Your task to perform on an android device: Go to calendar. Show me events next week Image 0: 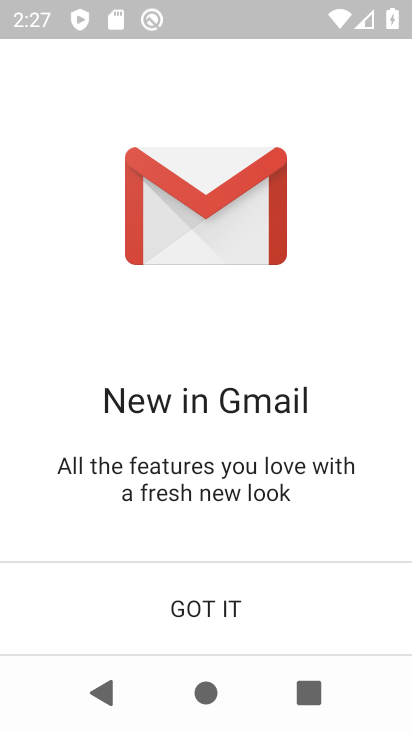
Step 0: press home button
Your task to perform on an android device: Go to calendar. Show me events next week Image 1: 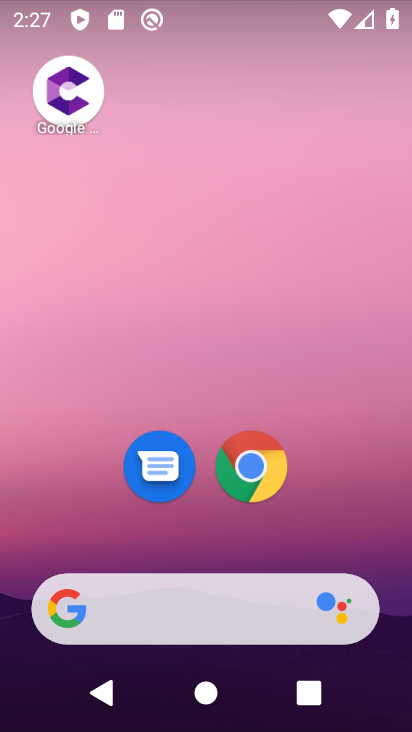
Step 1: press home button
Your task to perform on an android device: Go to calendar. Show me events next week Image 2: 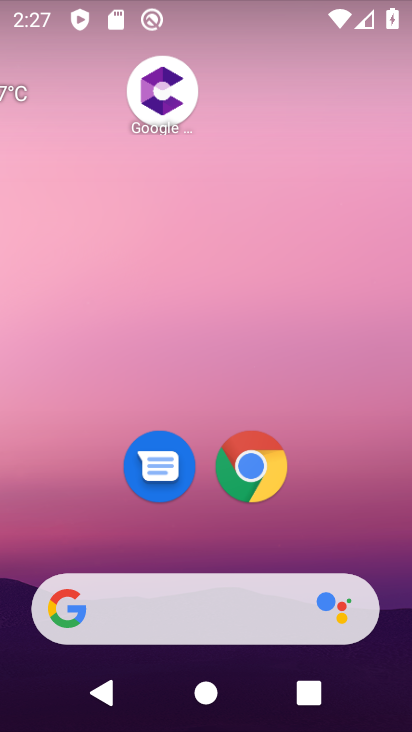
Step 2: press home button
Your task to perform on an android device: Go to calendar. Show me events next week Image 3: 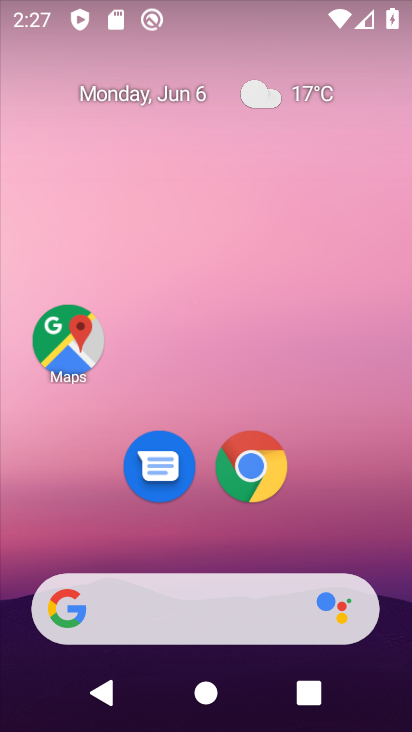
Step 3: click (168, 98)
Your task to perform on an android device: Go to calendar. Show me events next week Image 4: 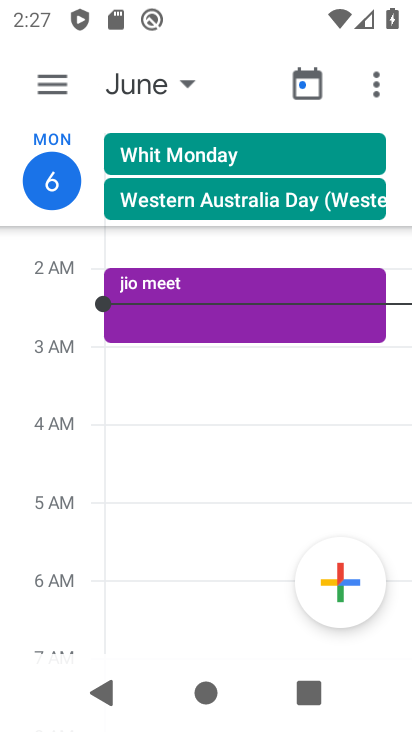
Step 4: click (160, 90)
Your task to perform on an android device: Go to calendar. Show me events next week Image 5: 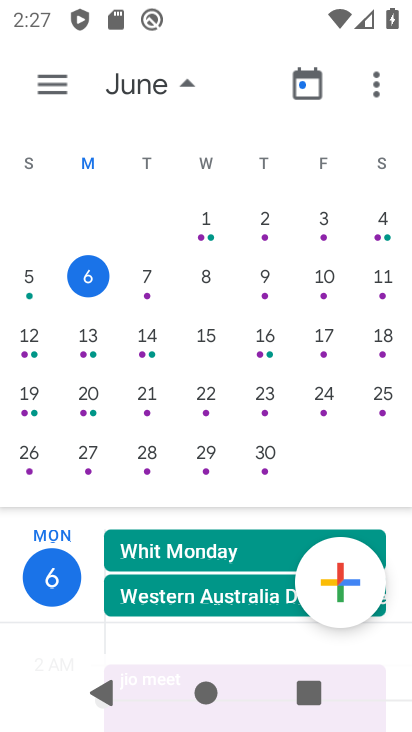
Step 5: click (61, 81)
Your task to perform on an android device: Go to calendar. Show me events next week Image 6: 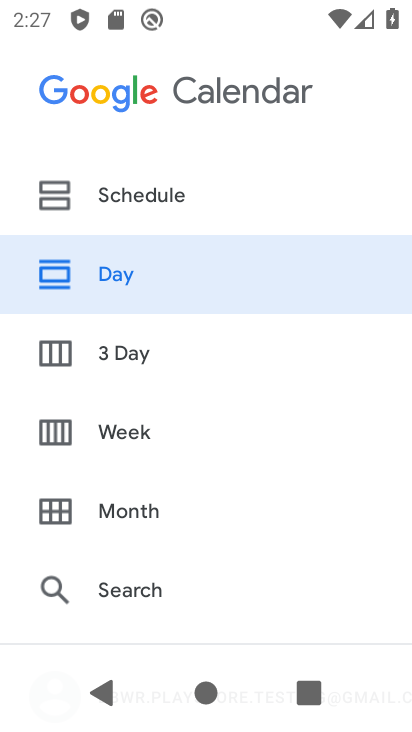
Step 6: click (132, 431)
Your task to perform on an android device: Go to calendar. Show me events next week Image 7: 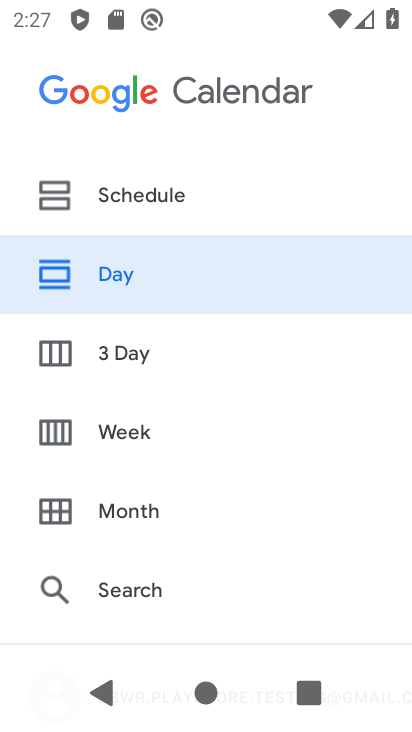
Step 7: click (118, 429)
Your task to perform on an android device: Go to calendar. Show me events next week Image 8: 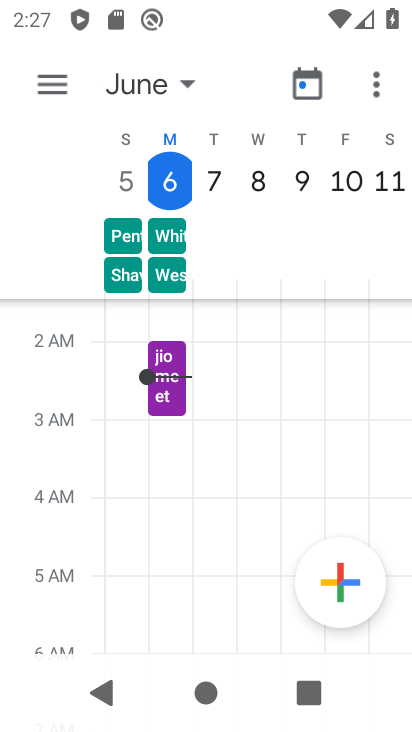
Step 8: click (183, 83)
Your task to perform on an android device: Go to calendar. Show me events next week Image 9: 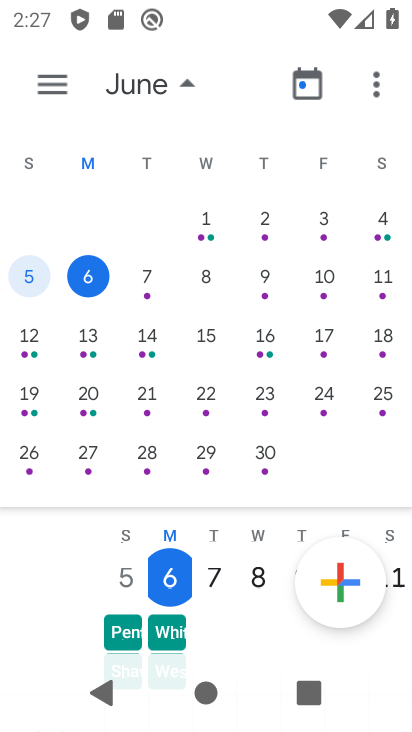
Step 9: click (22, 339)
Your task to perform on an android device: Go to calendar. Show me events next week Image 10: 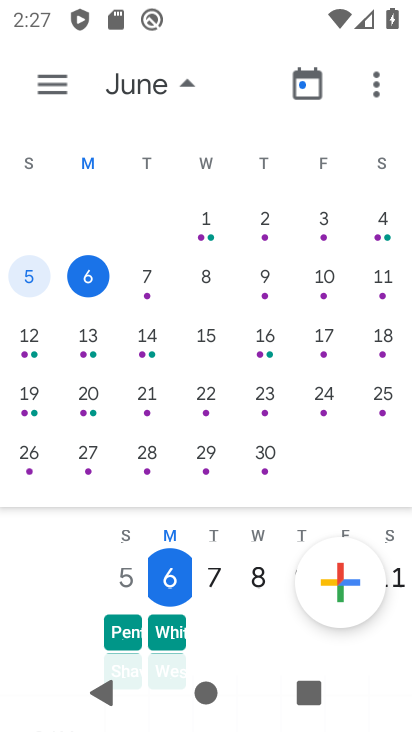
Step 10: click (36, 334)
Your task to perform on an android device: Go to calendar. Show me events next week Image 11: 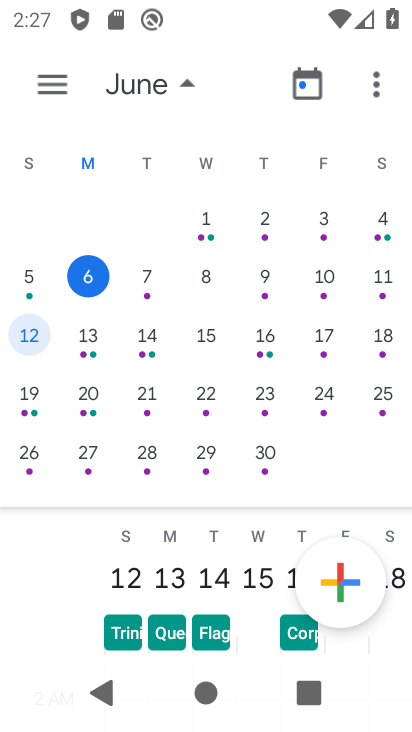
Step 11: task complete